Your task to perform on an android device: Go to settings Image 0: 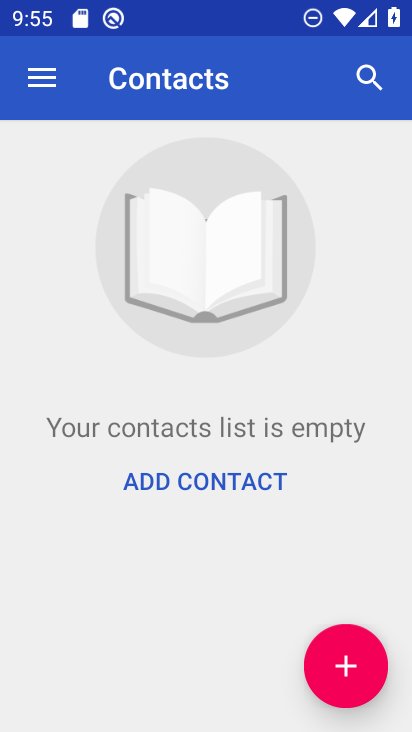
Step 0: press home button
Your task to perform on an android device: Go to settings Image 1: 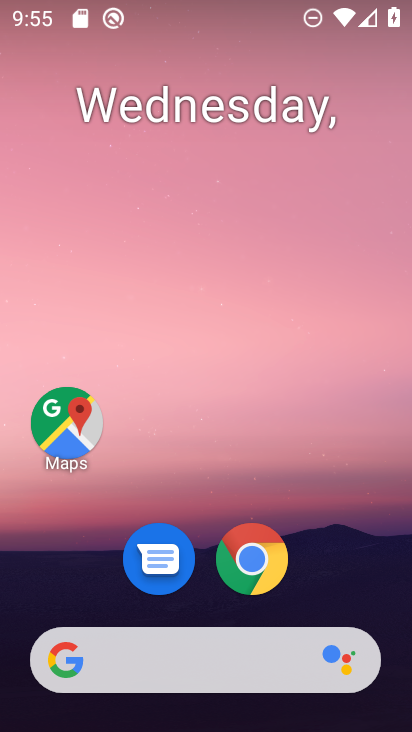
Step 1: drag from (372, 571) to (392, 182)
Your task to perform on an android device: Go to settings Image 2: 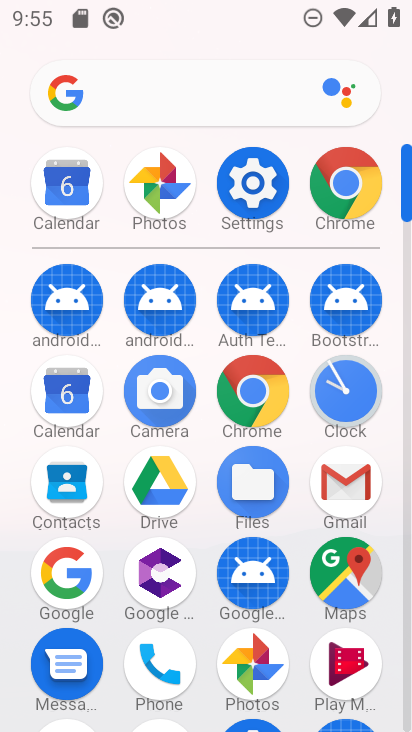
Step 2: click (255, 201)
Your task to perform on an android device: Go to settings Image 3: 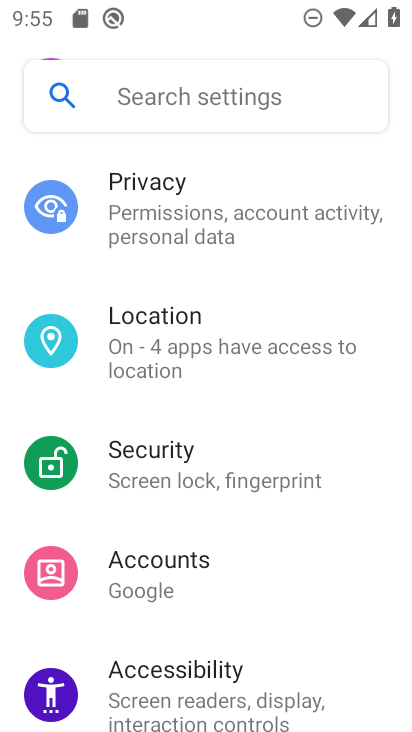
Step 3: task complete